Your task to perform on an android device: turn notification dots on Image 0: 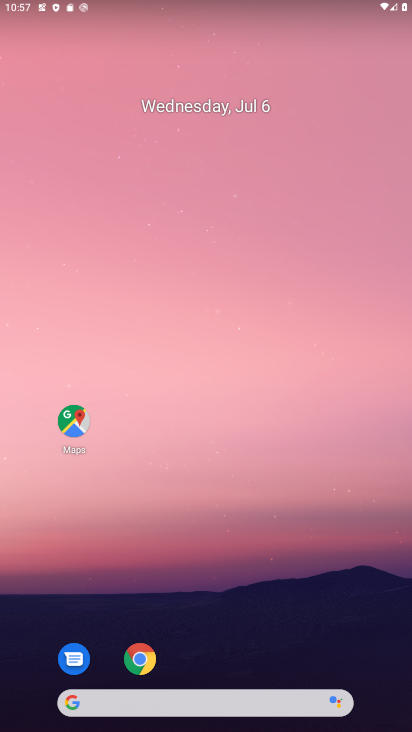
Step 0: drag from (259, 640) to (318, 77)
Your task to perform on an android device: turn notification dots on Image 1: 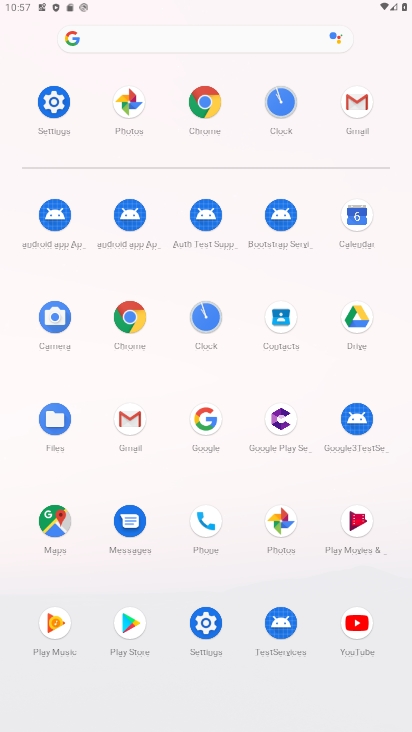
Step 1: click (58, 112)
Your task to perform on an android device: turn notification dots on Image 2: 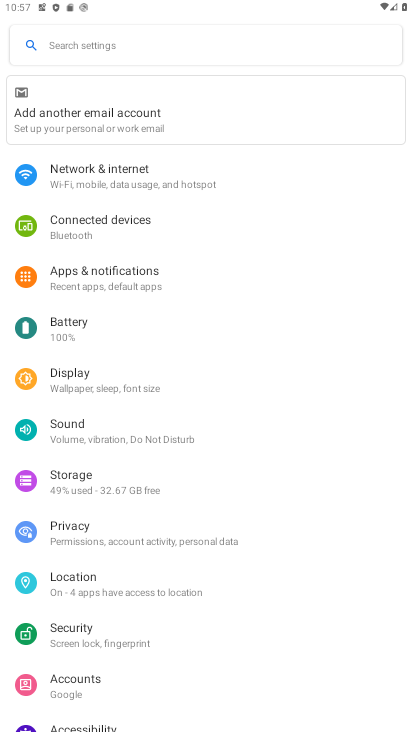
Step 2: click (171, 288)
Your task to perform on an android device: turn notification dots on Image 3: 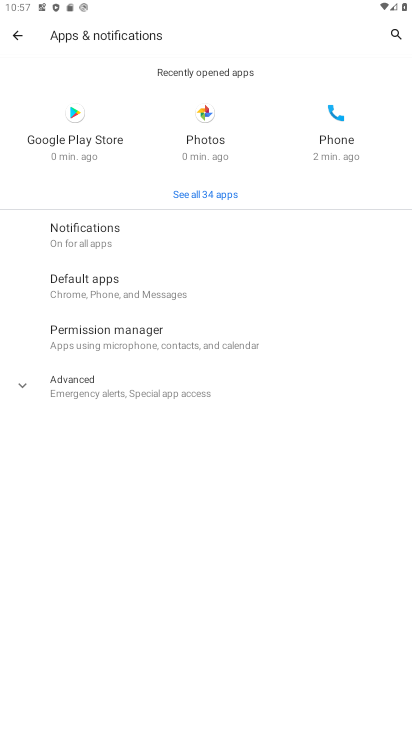
Step 3: click (100, 229)
Your task to perform on an android device: turn notification dots on Image 4: 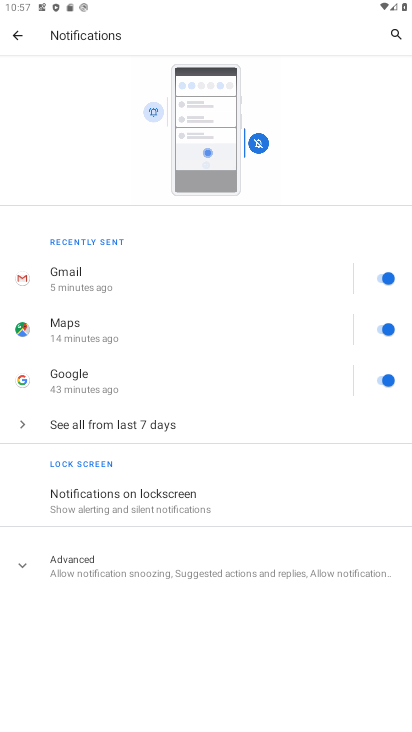
Step 4: click (152, 562)
Your task to perform on an android device: turn notification dots on Image 5: 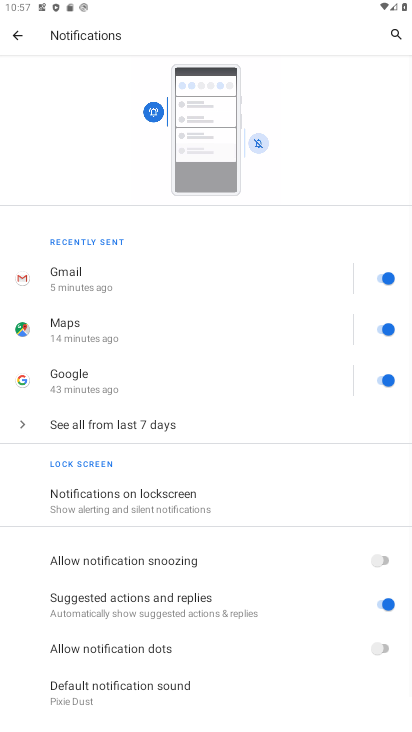
Step 5: drag from (149, 686) to (178, 477)
Your task to perform on an android device: turn notification dots on Image 6: 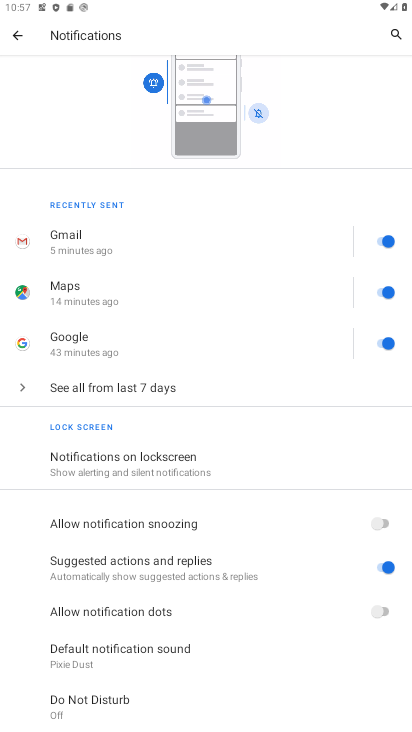
Step 6: click (378, 606)
Your task to perform on an android device: turn notification dots on Image 7: 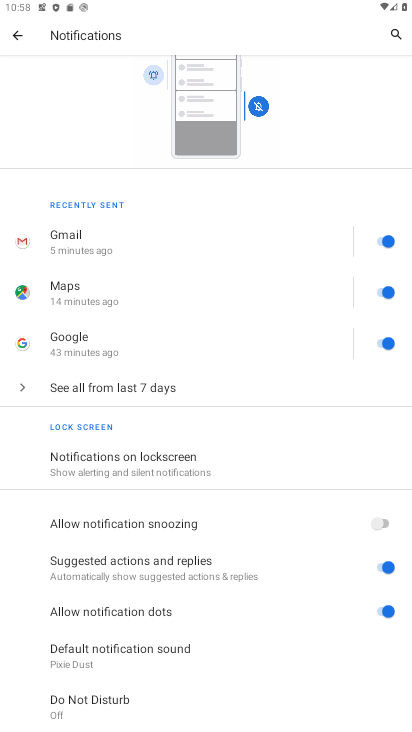
Step 7: task complete